Your task to perform on an android device: Search for Italian restaurants on Maps Image 0: 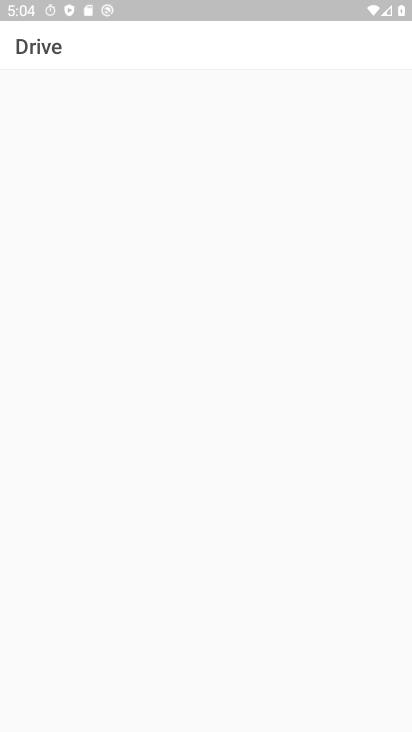
Step 0: press home button
Your task to perform on an android device: Search for Italian restaurants on Maps Image 1: 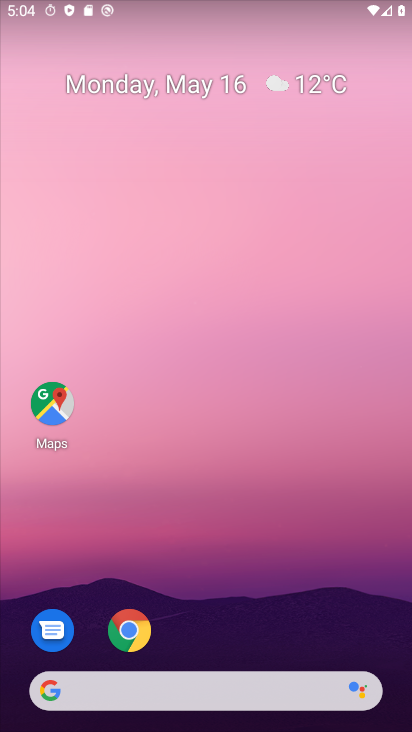
Step 1: click (55, 411)
Your task to perform on an android device: Search for Italian restaurants on Maps Image 2: 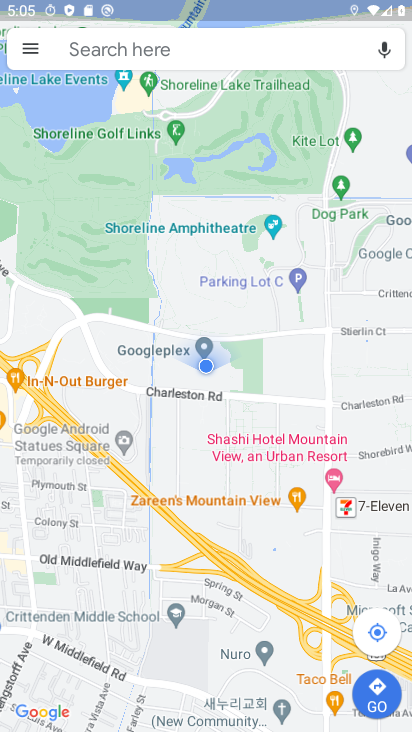
Step 2: click (264, 48)
Your task to perform on an android device: Search for Italian restaurants on Maps Image 3: 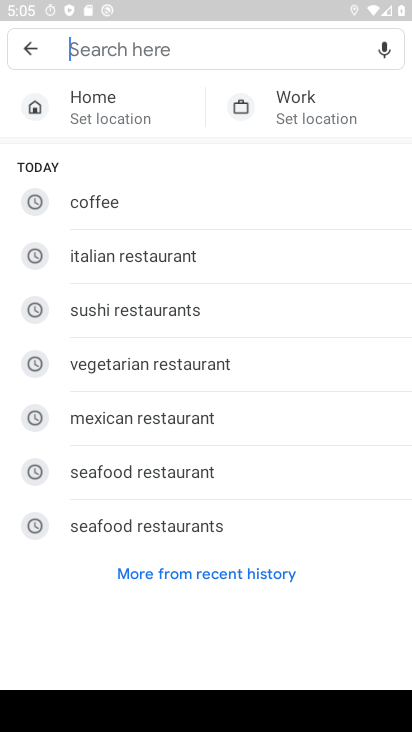
Step 3: type "Italian restaurants"
Your task to perform on an android device: Search for Italian restaurants on Maps Image 4: 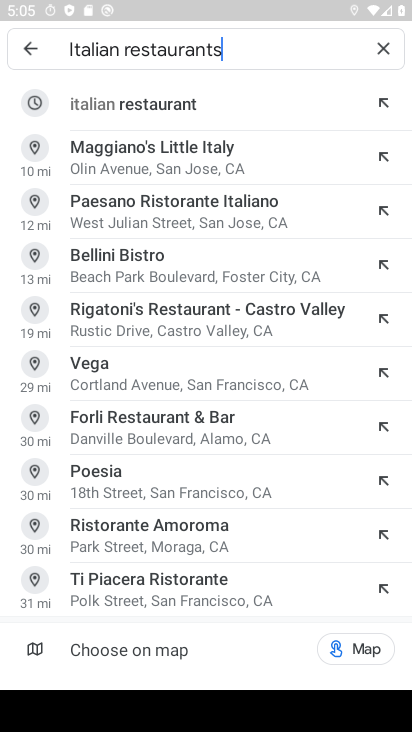
Step 4: press enter
Your task to perform on an android device: Search for Italian restaurants on Maps Image 5: 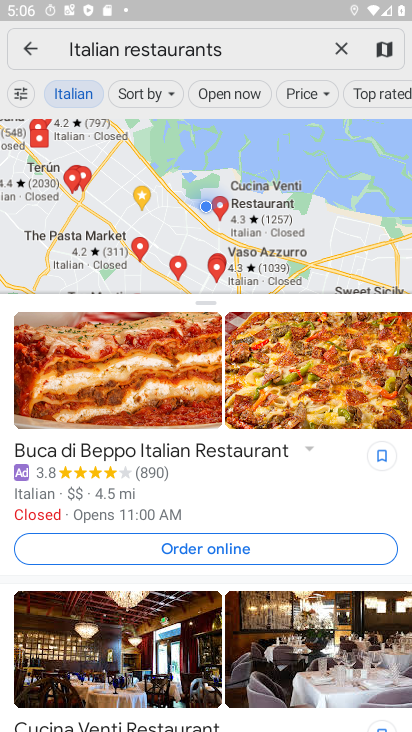
Step 5: task complete